Your task to perform on an android device: create a new album in the google photos Image 0: 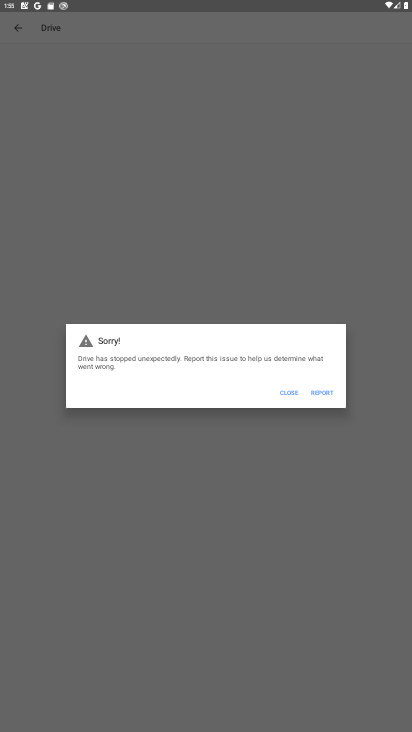
Step 0: press home button
Your task to perform on an android device: create a new album in the google photos Image 1: 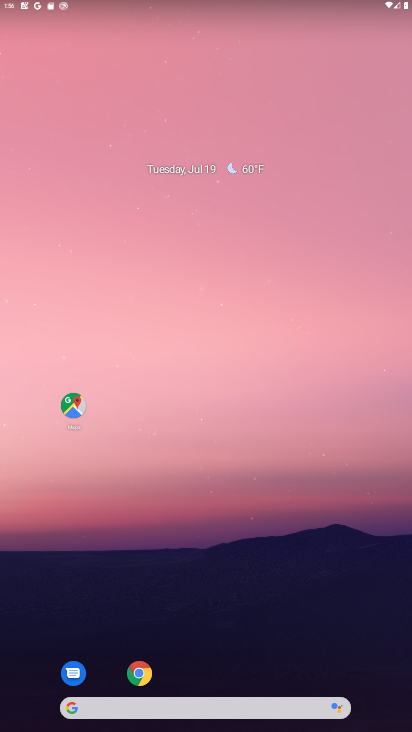
Step 1: drag from (367, 679) to (296, 187)
Your task to perform on an android device: create a new album in the google photos Image 2: 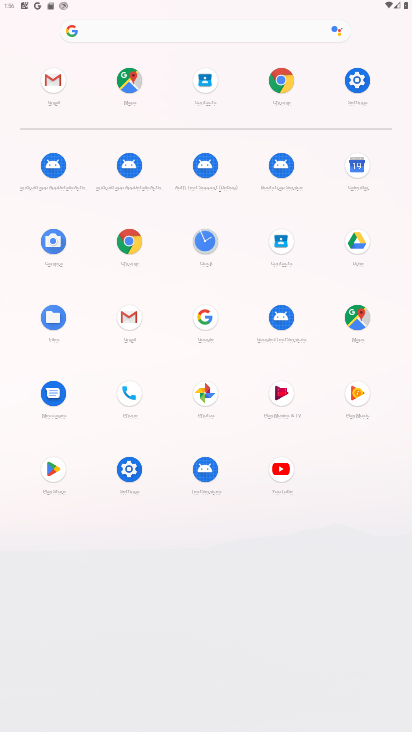
Step 2: click (199, 392)
Your task to perform on an android device: create a new album in the google photos Image 3: 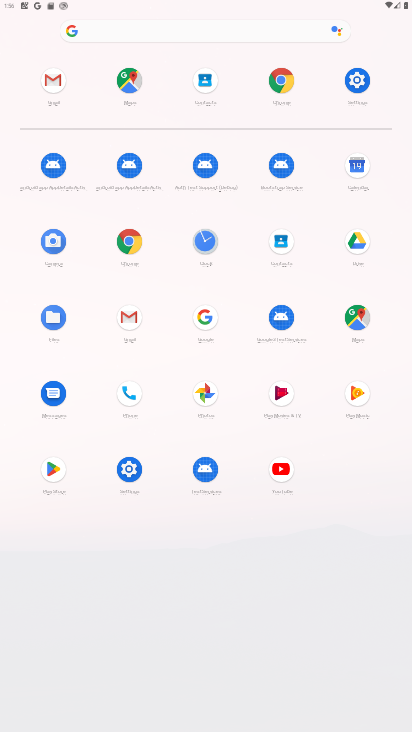
Step 3: click (199, 392)
Your task to perform on an android device: create a new album in the google photos Image 4: 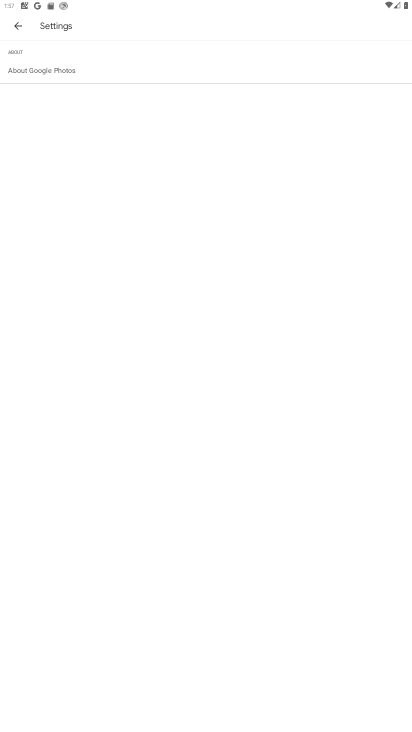
Step 4: click (3, 18)
Your task to perform on an android device: create a new album in the google photos Image 5: 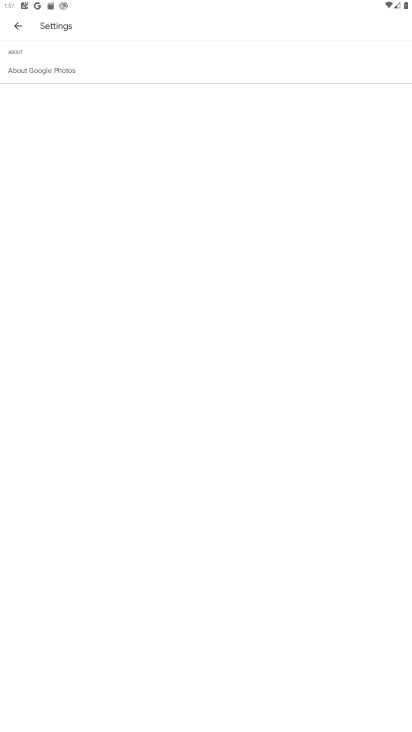
Step 5: click (22, 26)
Your task to perform on an android device: create a new album in the google photos Image 6: 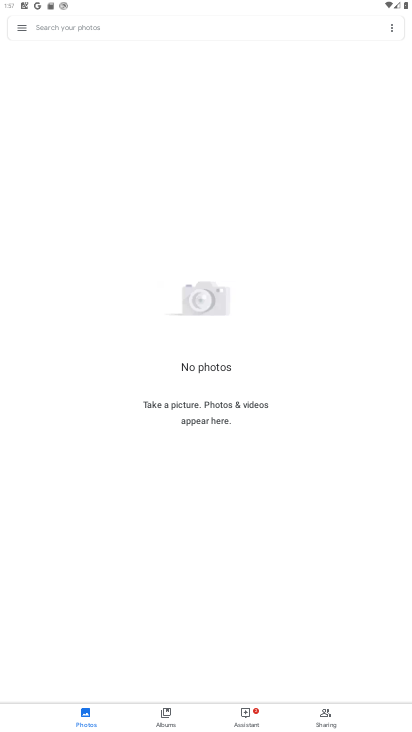
Step 6: task complete